Your task to perform on an android device: What's the weather today? Image 0: 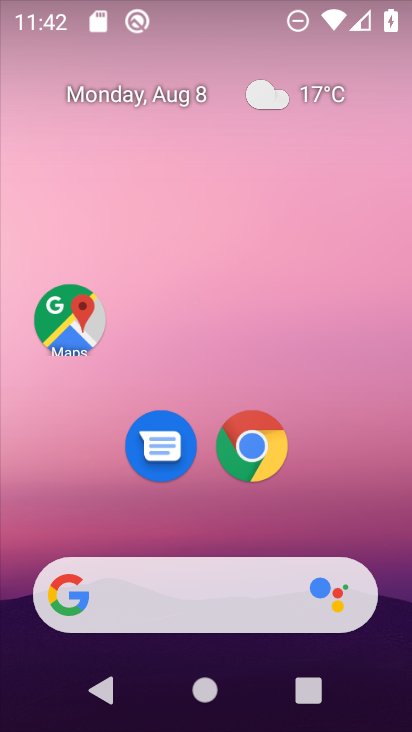
Step 0: click (310, 92)
Your task to perform on an android device: What's the weather today? Image 1: 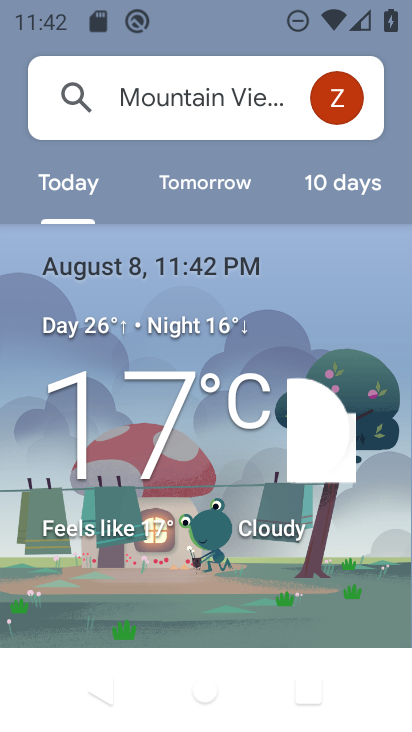
Step 1: task complete